Your task to perform on an android device: turn on javascript in the chrome app Image 0: 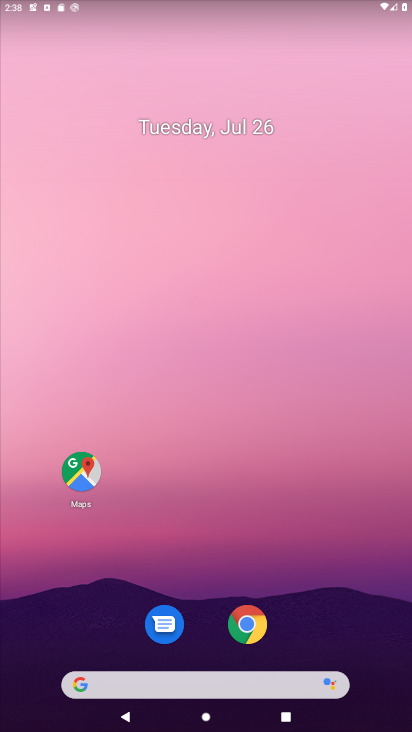
Step 0: click (234, 625)
Your task to perform on an android device: turn on javascript in the chrome app Image 1: 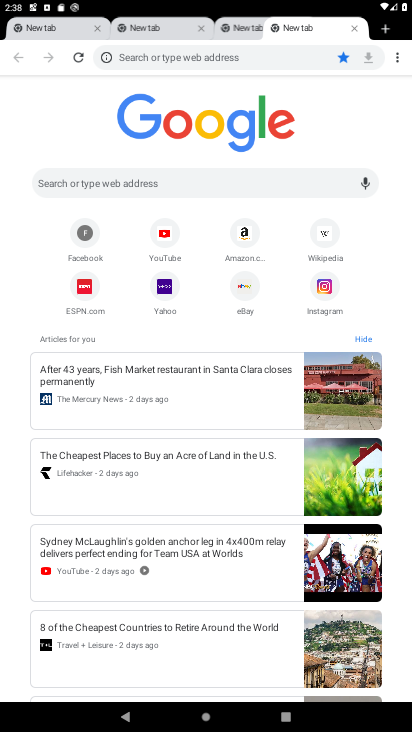
Step 1: click (394, 61)
Your task to perform on an android device: turn on javascript in the chrome app Image 2: 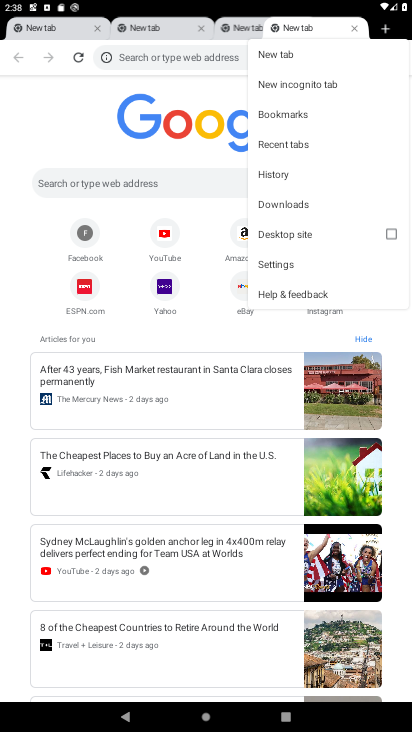
Step 2: click (277, 265)
Your task to perform on an android device: turn on javascript in the chrome app Image 3: 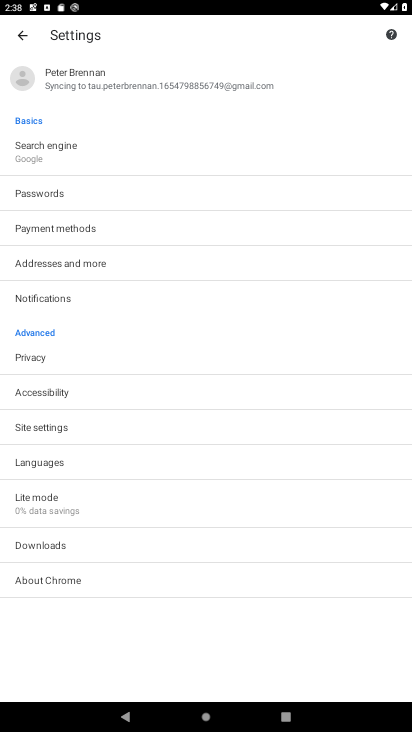
Step 3: click (15, 428)
Your task to perform on an android device: turn on javascript in the chrome app Image 4: 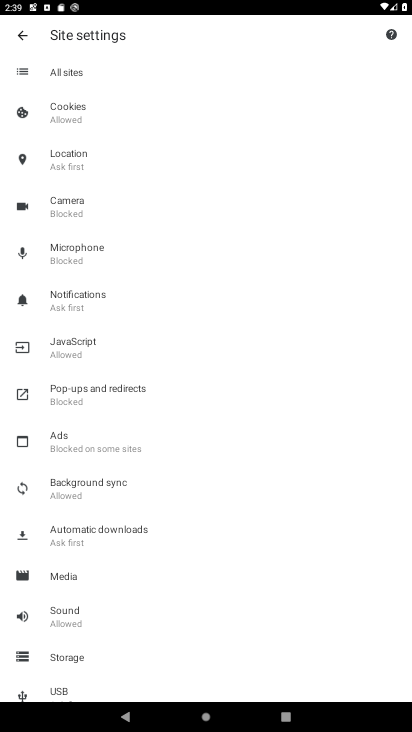
Step 4: click (60, 350)
Your task to perform on an android device: turn on javascript in the chrome app Image 5: 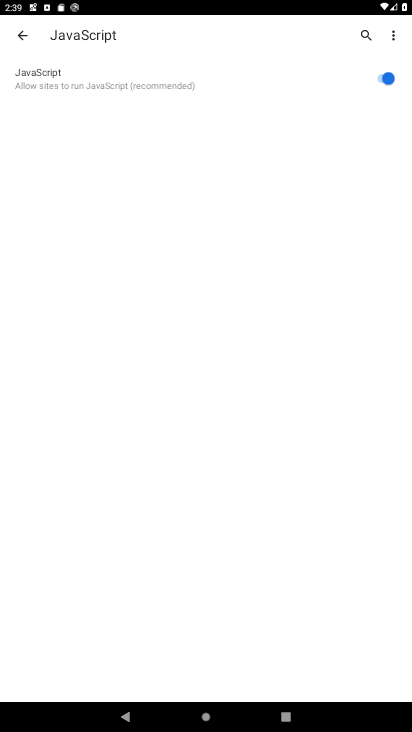
Step 5: task complete